Your task to perform on an android device: When is my next meeting? Image 0: 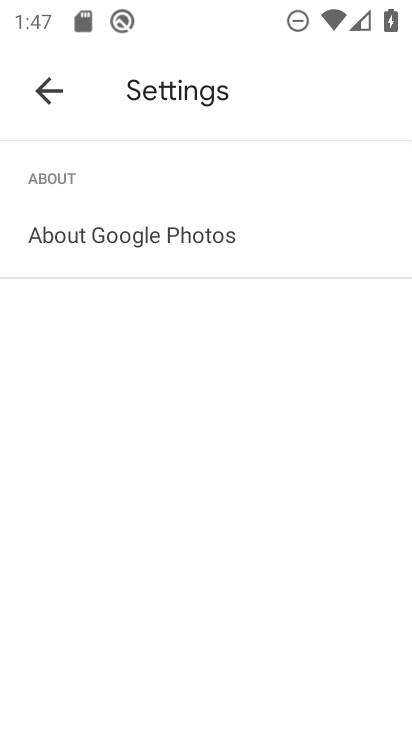
Step 0: press home button
Your task to perform on an android device: When is my next meeting? Image 1: 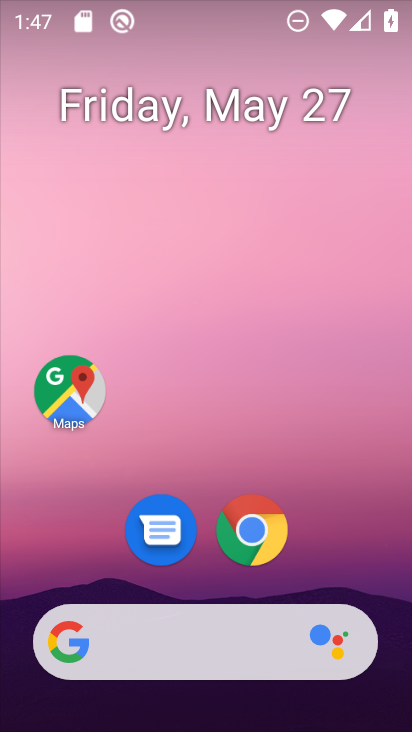
Step 1: drag from (128, 723) to (55, 37)
Your task to perform on an android device: When is my next meeting? Image 2: 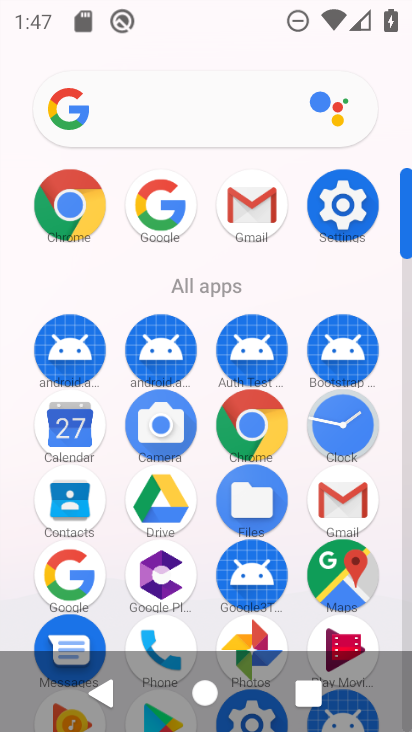
Step 2: click (72, 438)
Your task to perform on an android device: When is my next meeting? Image 3: 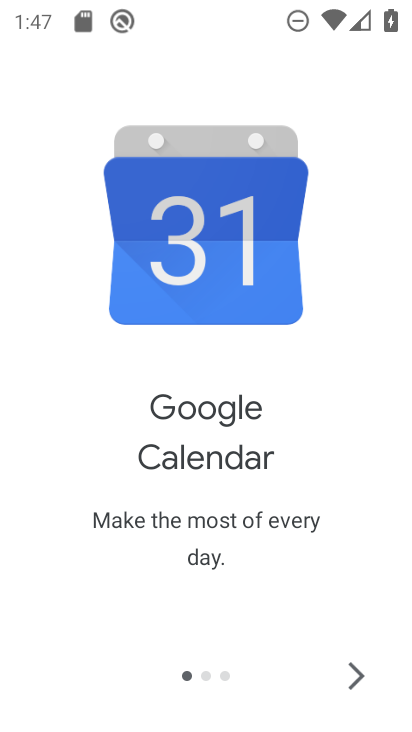
Step 3: click (361, 686)
Your task to perform on an android device: When is my next meeting? Image 4: 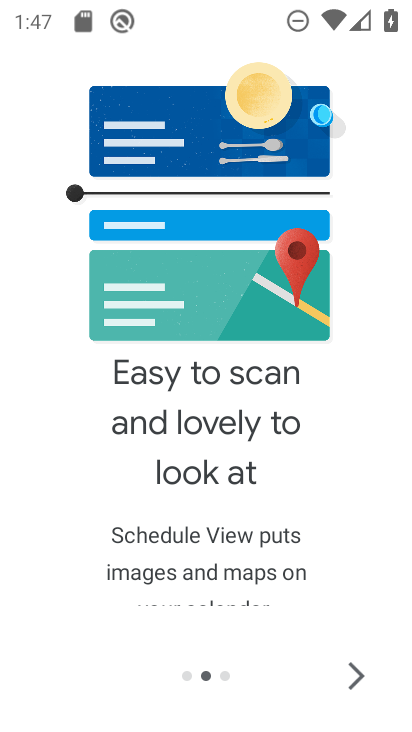
Step 4: click (361, 686)
Your task to perform on an android device: When is my next meeting? Image 5: 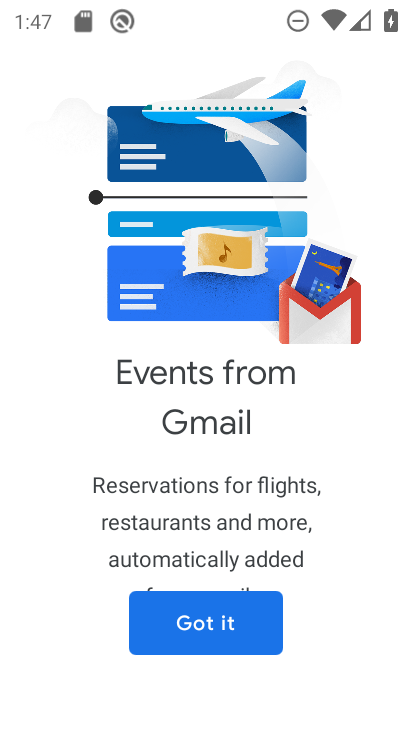
Step 5: click (262, 637)
Your task to perform on an android device: When is my next meeting? Image 6: 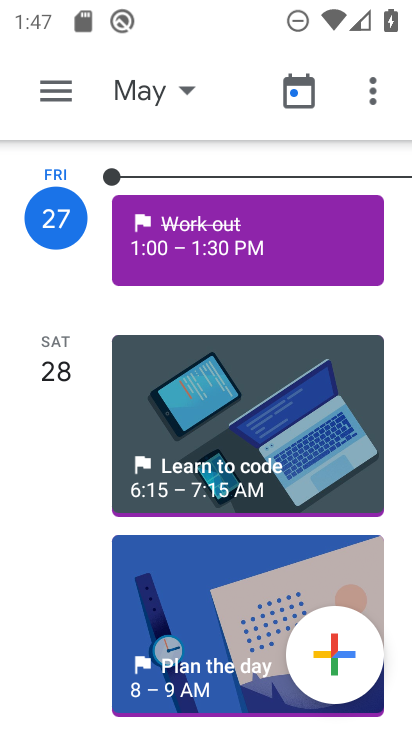
Step 6: click (234, 404)
Your task to perform on an android device: When is my next meeting? Image 7: 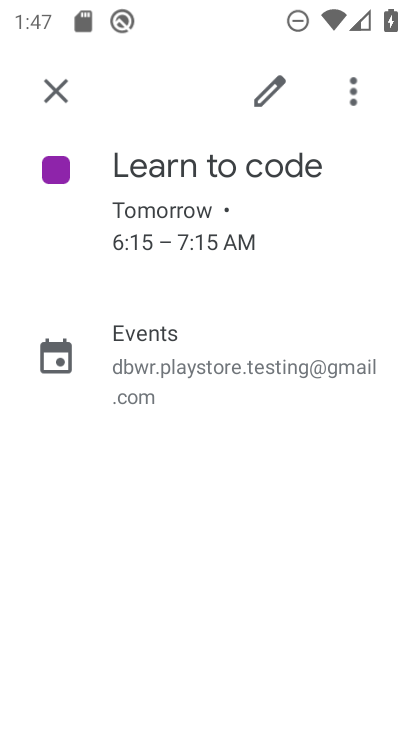
Step 7: task complete